Your task to perform on an android device: toggle notification dots Image 0: 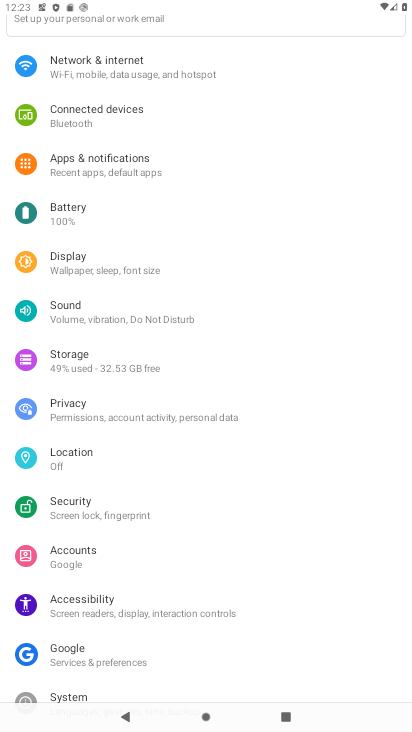
Step 0: click (189, 157)
Your task to perform on an android device: toggle notification dots Image 1: 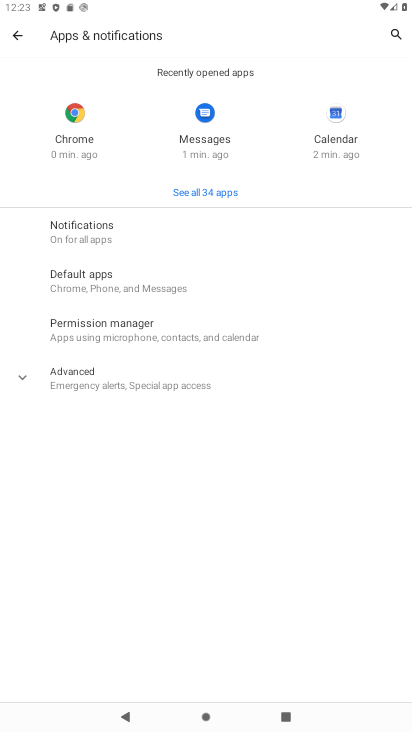
Step 1: click (169, 237)
Your task to perform on an android device: toggle notification dots Image 2: 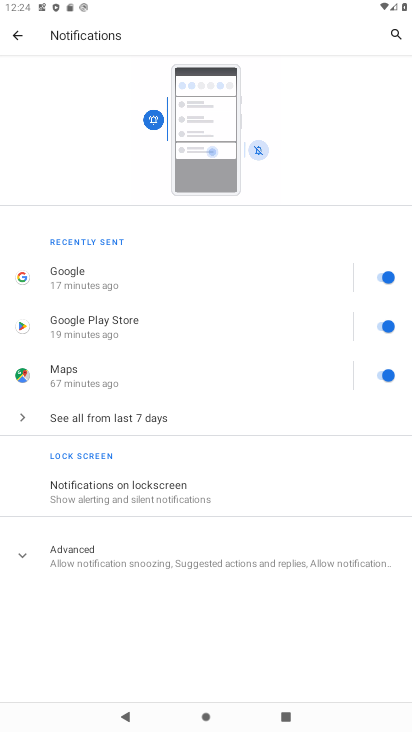
Step 2: click (149, 561)
Your task to perform on an android device: toggle notification dots Image 3: 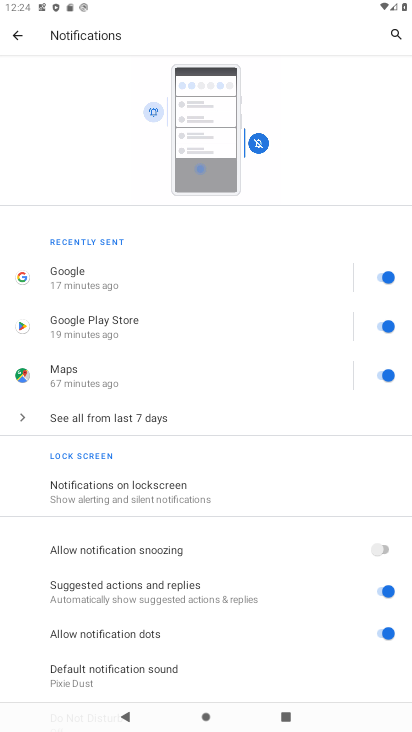
Step 3: drag from (217, 660) to (213, 394)
Your task to perform on an android device: toggle notification dots Image 4: 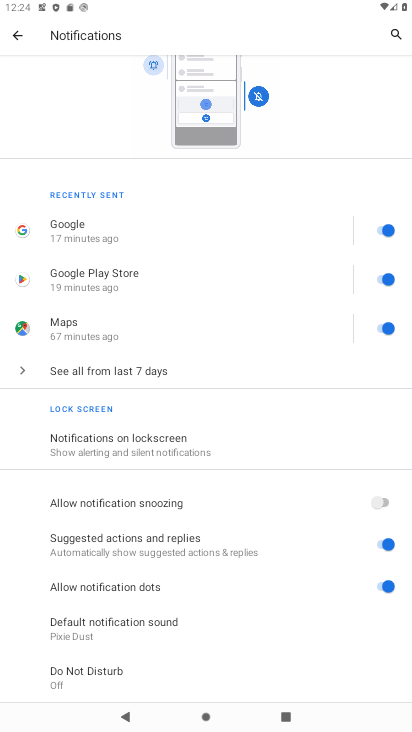
Step 4: click (381, 581)
Your task to perform on an android device: toggle notification dots Image 5: 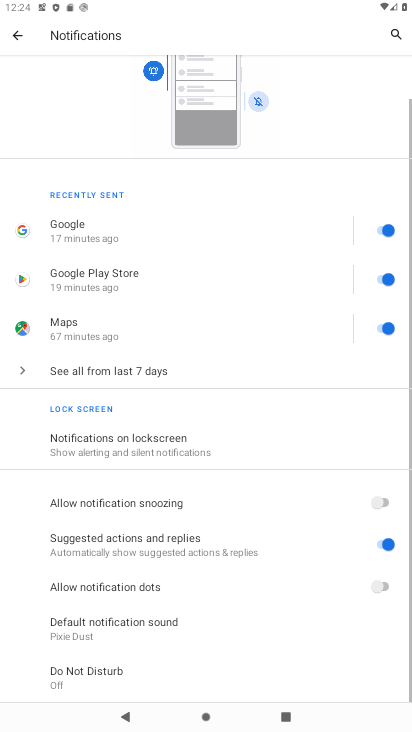
Step 5: task complete